Your task to perform on an android device: Open the web browser Image 0: 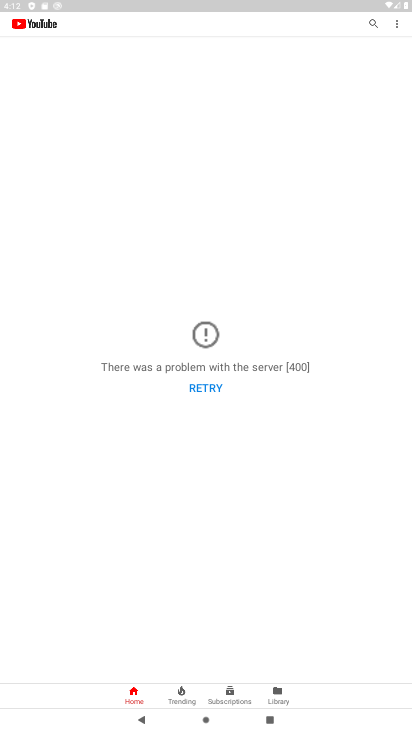
Step 0: press home button
Your task to perform on an android device: Open the web browser Image 1: 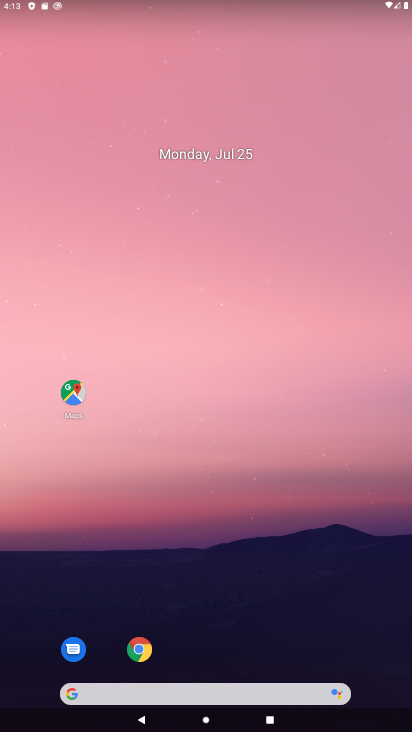
Step 1: drag from (242, 643) to (152, 0)
Your task to perform on an android device: Open the web browser Image 2: 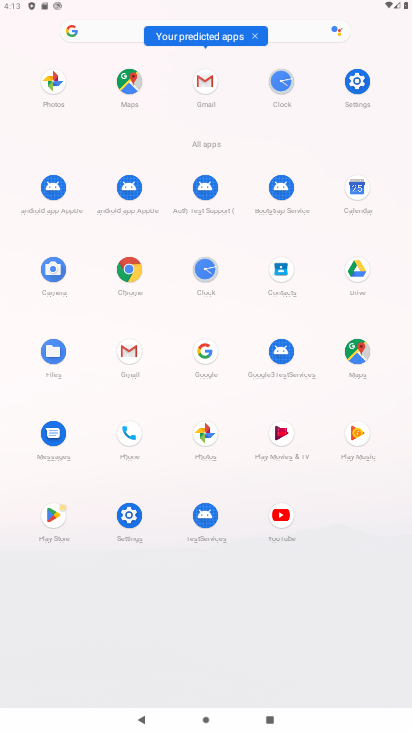
Step 2: click (130, 278)
Your task to perform on an android device: Open the web browser Image 3: 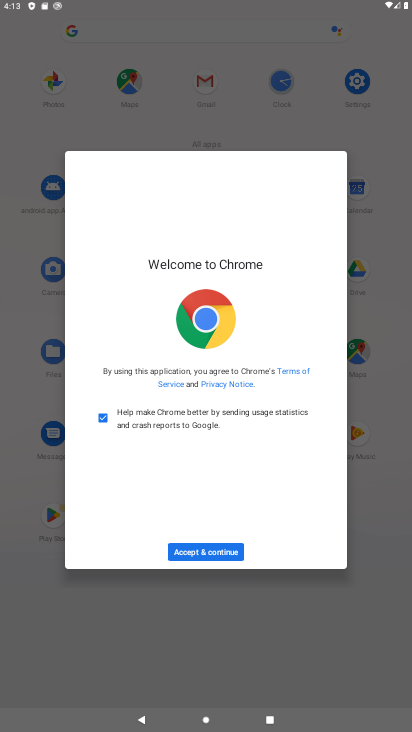
Step 3: click (219, 546)
Your task to perform on an android device: Open the web browser Image 4: 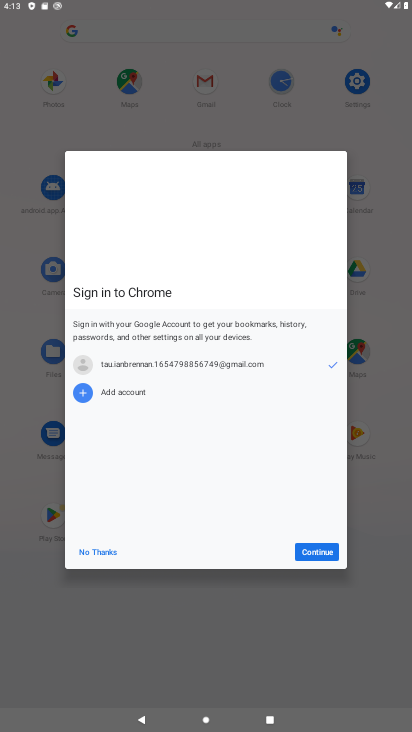
Step 4: click (308, 553)
Your task to perform on an android device: Open the web browser Image 5: 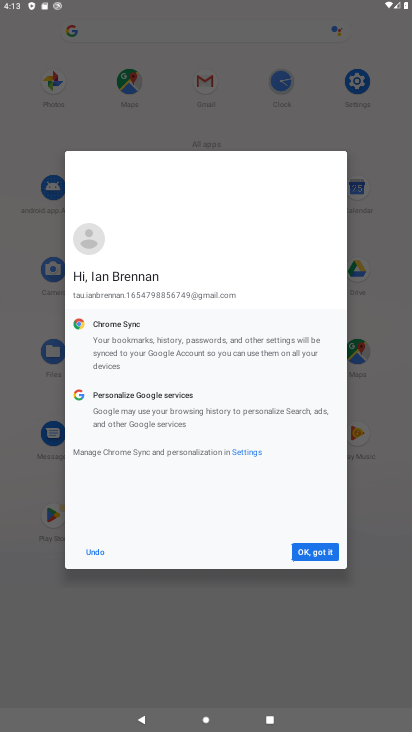
Step 5: click (308, 553)
Your task to perform on an android device: Open the web browser Image 6: 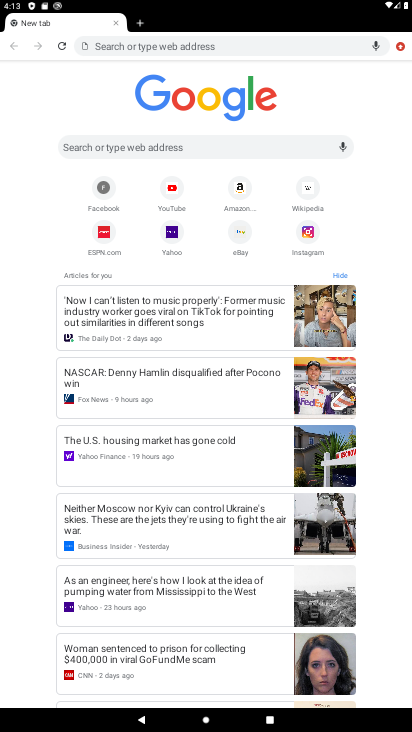
Step 6: task complete